Your task to perform on an android device: change the clock display to digital Image 0: 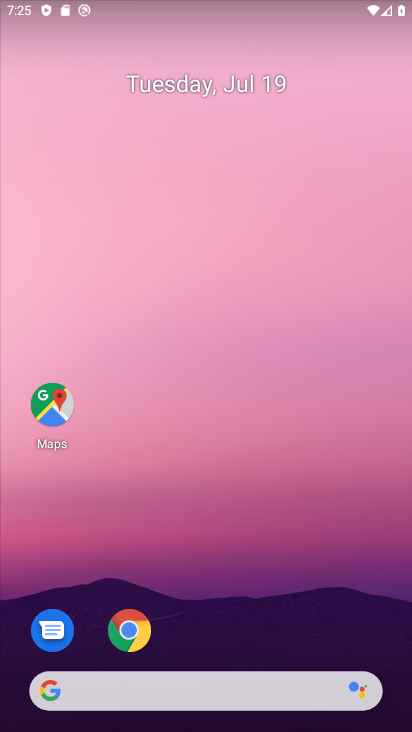
Step 0: drag from (285, 582) to (228, 187)
Your task to perform on an android device: change the clock display to digital Image 1: 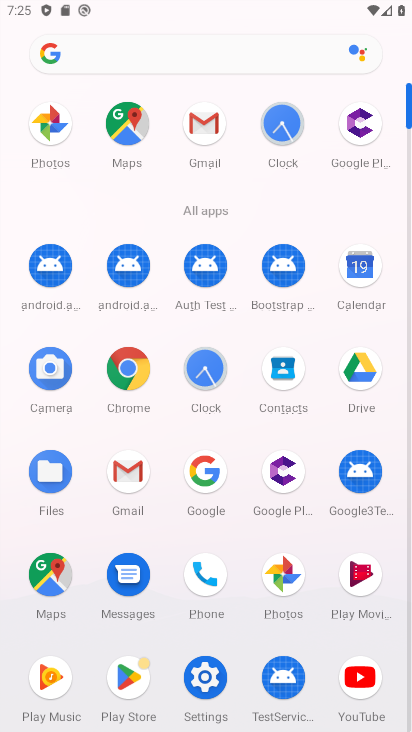
Step 1: click (207, 381)
Your task to perform on an android device: change the clock display to digital Image 2: 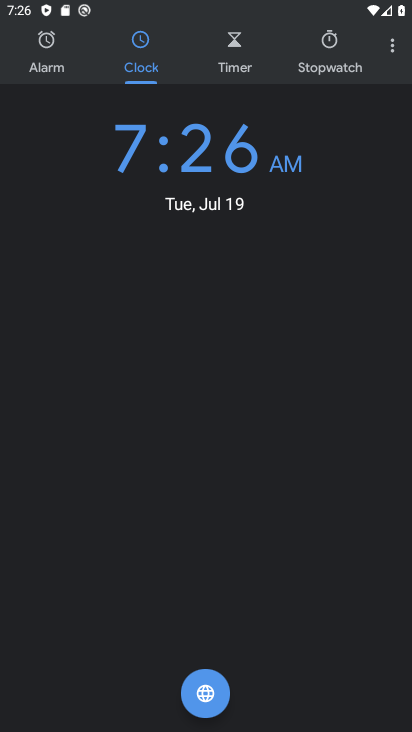
Step 2: click (393, 44)
Your task to perform on an android device: change the clock display to digital Image 3: 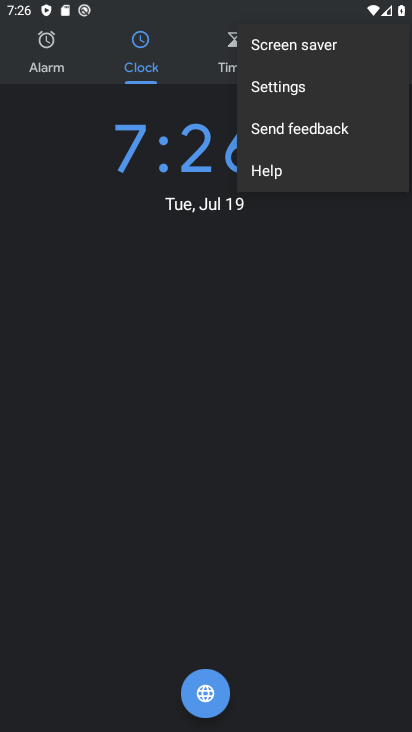
Step 3: click (296, 91)
Your task to perform on an android device: change the clock display to digital Image 4: 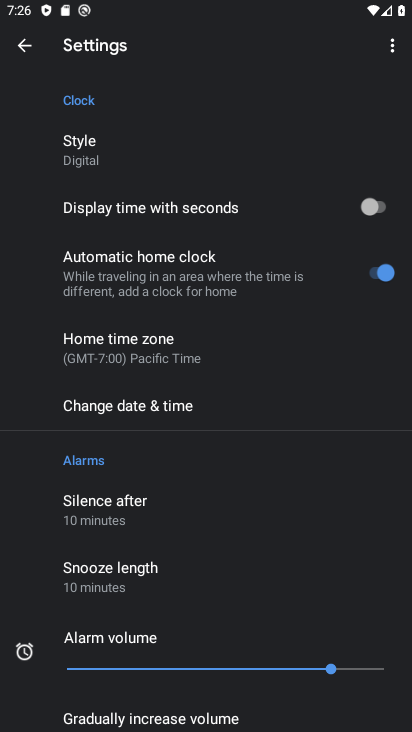
Step 4: task complete